Your task to perform on an android device: set the timer Image 0: 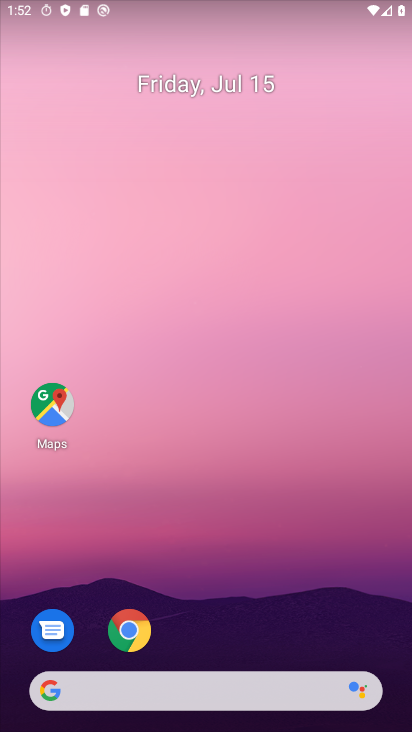
Step 0: drag from (207, 648) to (192, 146)
Your task to perform on an android device: set the timer Image 1: 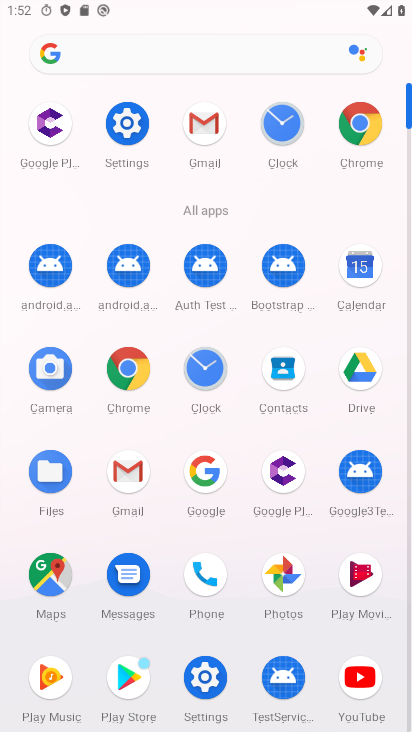
Step 1: click (293, 122)
Your task to perform on an android device: set the timer Image 2: 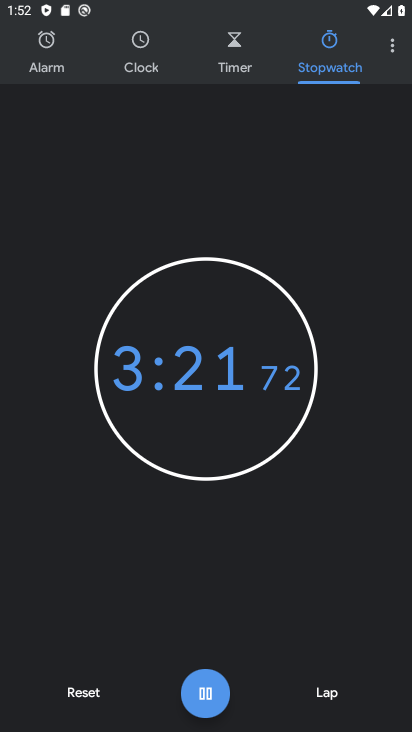
Step 2: click (224, 33)
Your task to perform on an android device: set the timer Image 3: 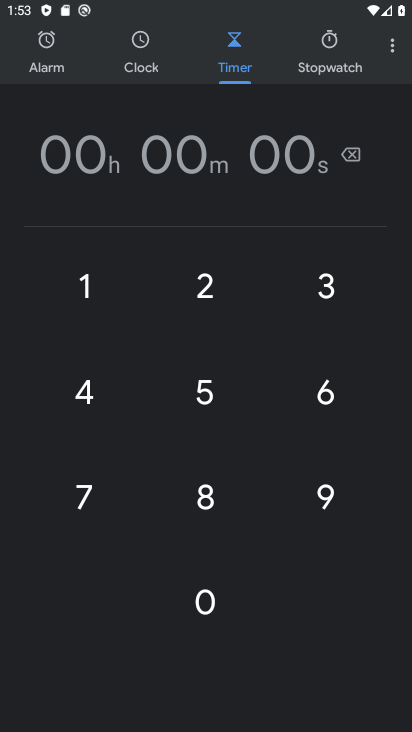
Step 3: click (286, 151)
Your task to perform on an android device: set the timer Image 4: 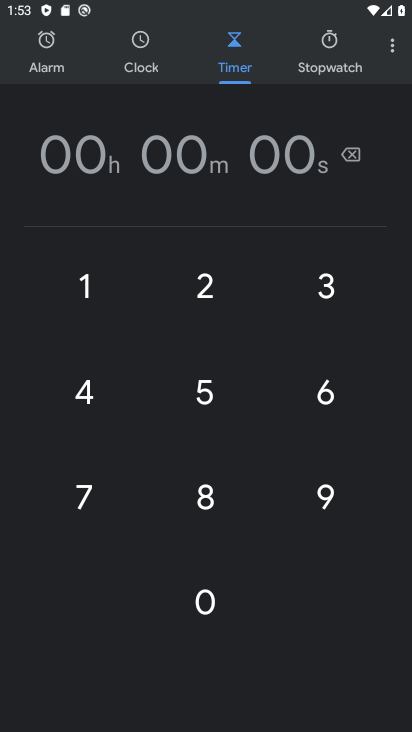
Step 4: type "11"
Your task to perform on an android device: set the timer Image 5: 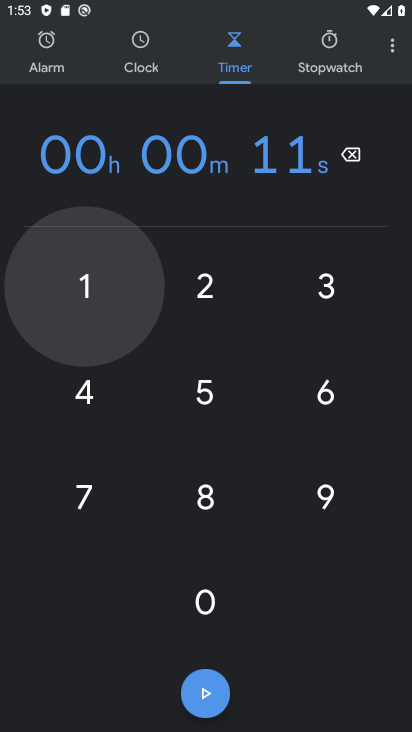
Step 5: task complete